Your task to perform on an android device: Open calendar and show me the second week of next month Image 0: 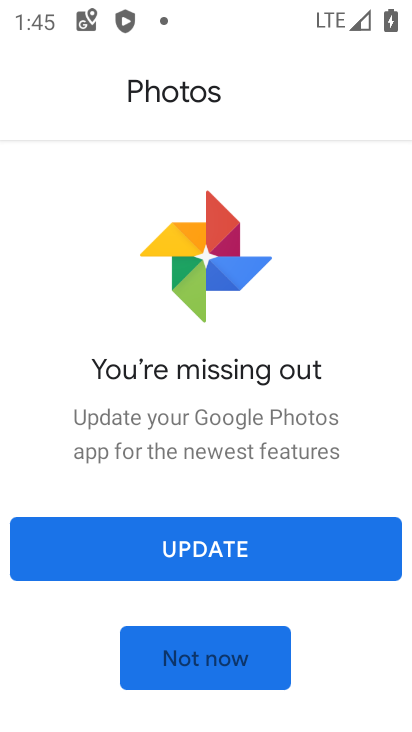
Step 0: press home button
Your task to perform on an android device: Open calendar and show me the second week of next month Image 1: 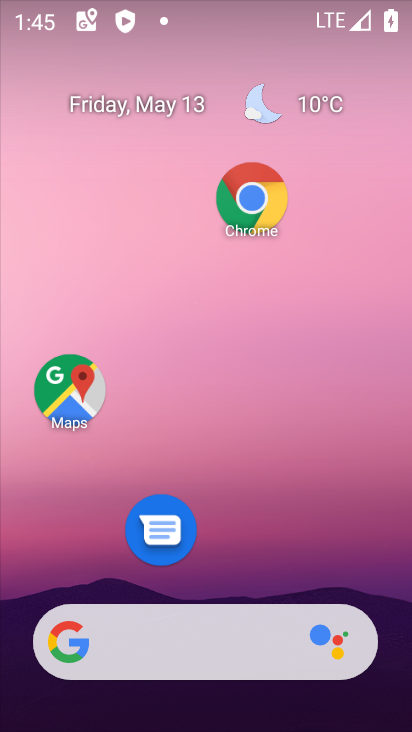
Step 1: drag from (217, 582) to (168, 0)
Your task to perform on an android device: Open calendar and show me the second week of next month Image 2: 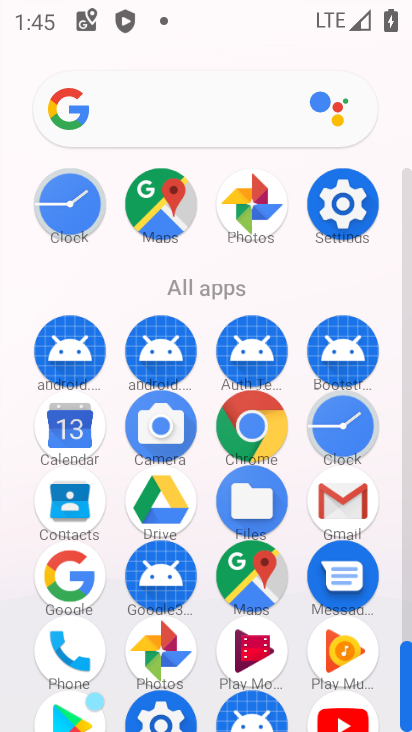
Step 2: click (82, 419)
Your task to perform on an android device: Open calendar and show me the second week of next month Image 3: 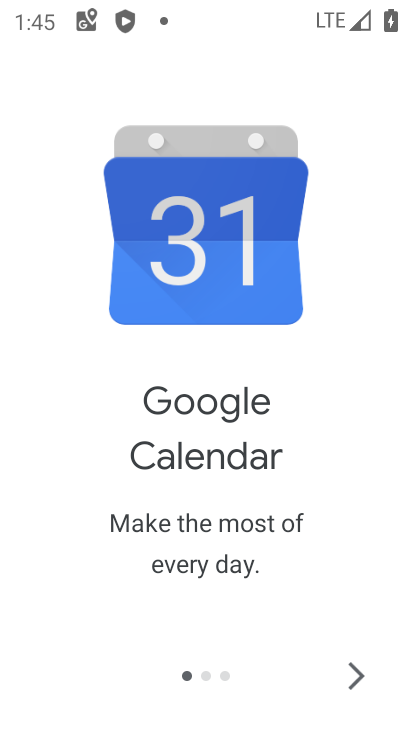
Step 3: click (360, 667)
Your task to perform on an android device: Open calendar and show me the second week of next month Image 4: 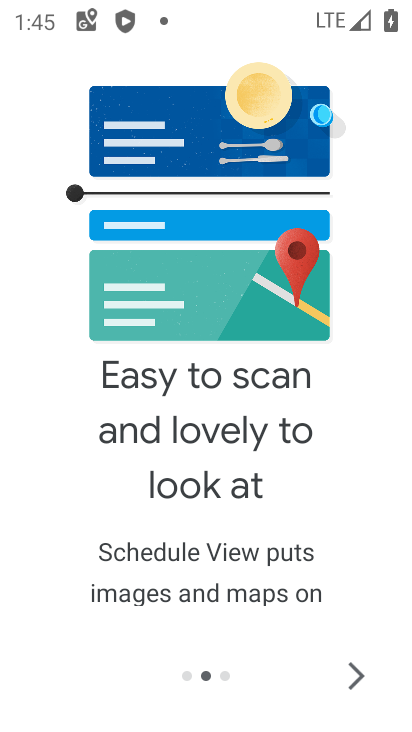
Step 4: click (361, 664)
Your task to perform on an android device: Open calendar and show me the second week of next month Image 5: 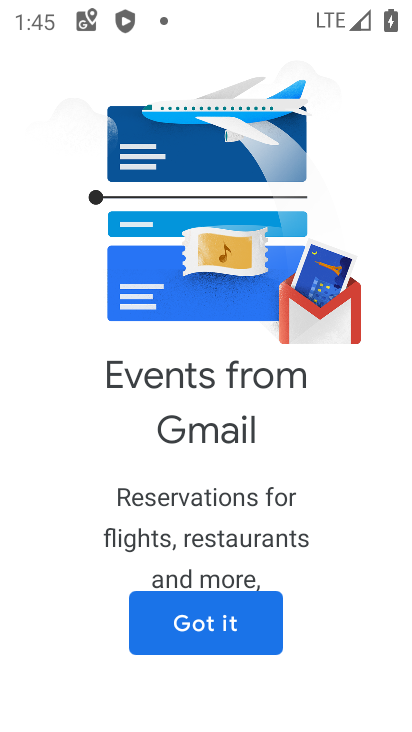
Step 5: click (214, 634)
Your task to perform on an android device: Open calendar and show me the second week of next month Image 6: 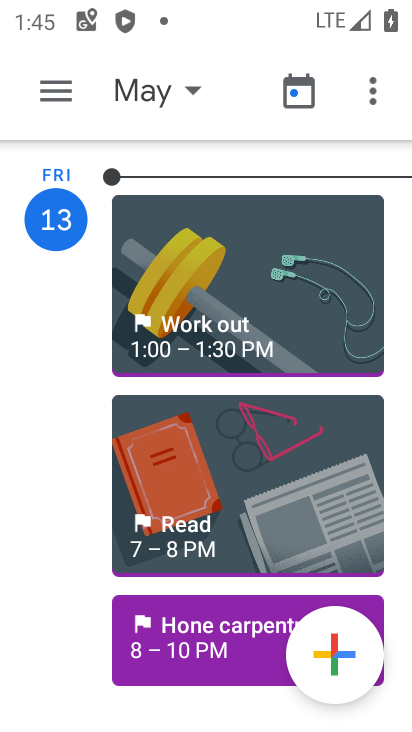
Step 6: click (277, 91)
Your task to perform on an android device: Open calendar and show me the second week of next month Image 7: 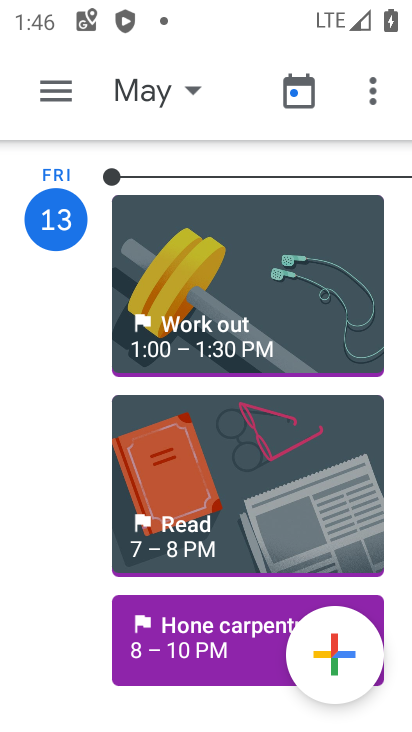
Step 7: click (295, 97)
Your task to perform on an android device: Open calendar and show me the second week of next month Image 8: 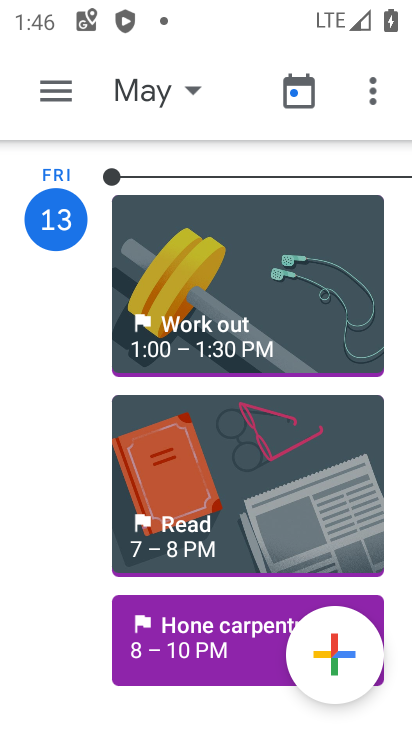
Step 8: click (73, 86)
Your task to perform on an android device: Open calendar and show me the second week of next month Image 9: 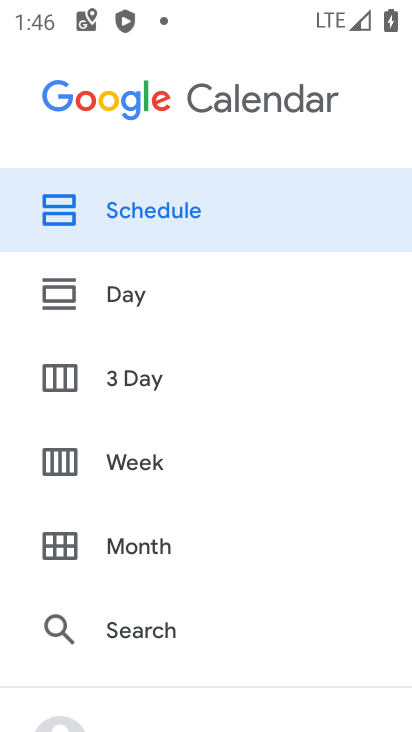
Step 9: click (147, 465)
Your task to perform on an android device: Open calendar and show me the second week of next month Image 10: 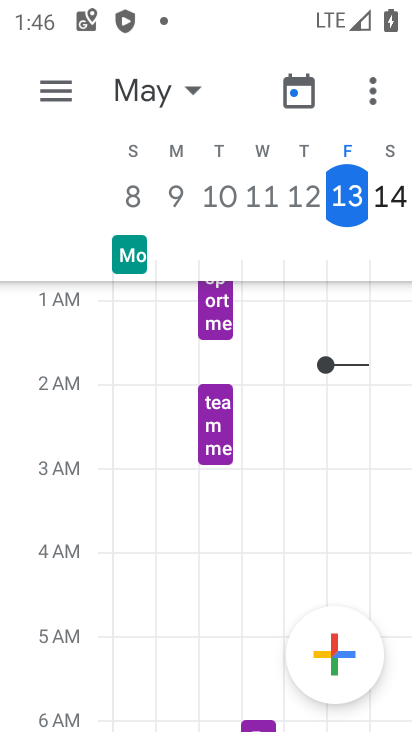
Step 10: task complete